Your task to perform on an android device: see tabs open on other devices in the chrome app Image 0: 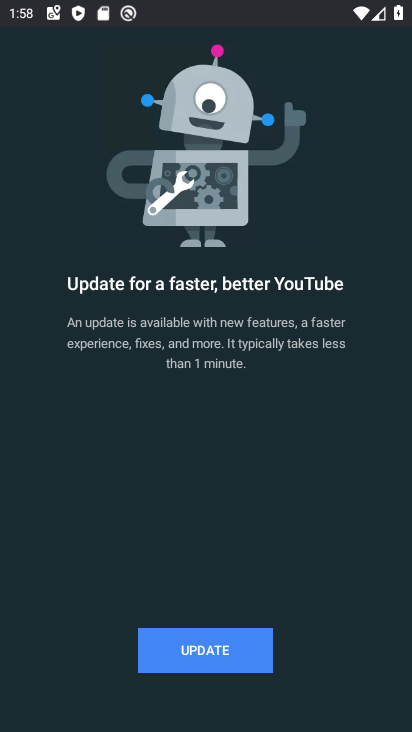
Step 0: press home button
Your task to perform on an android device: see tabs open on other devices in the chrome app Image 1: 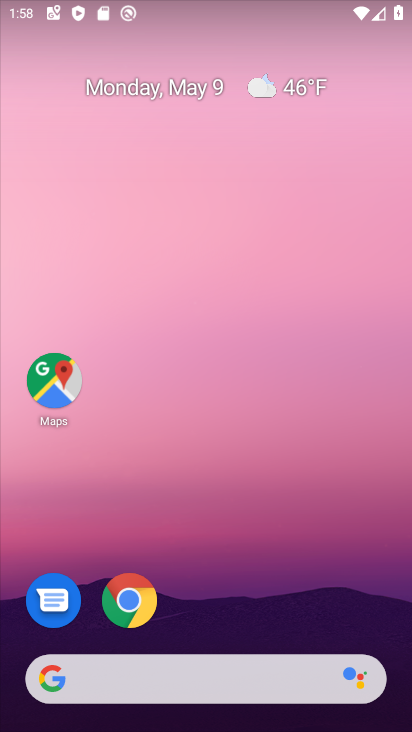
Step 1: click (143, 600)
Your task to perform on an android device: see tabs open on other devices in the chrome app Image 2: 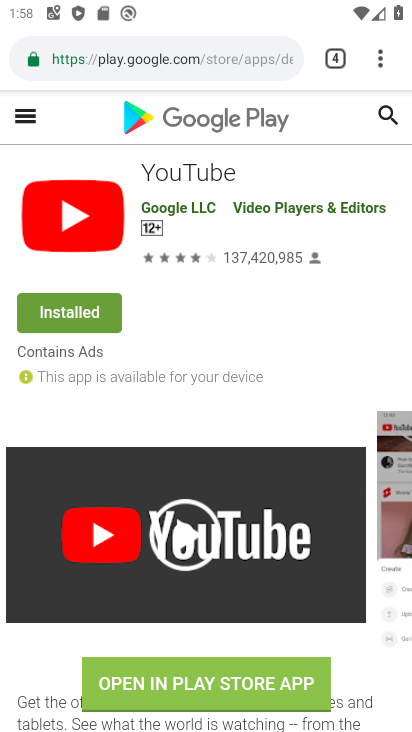
Step 2: click (370, 57)
Your task to perform on an android device: see tabs open on other devices in the chrome app Image 3: 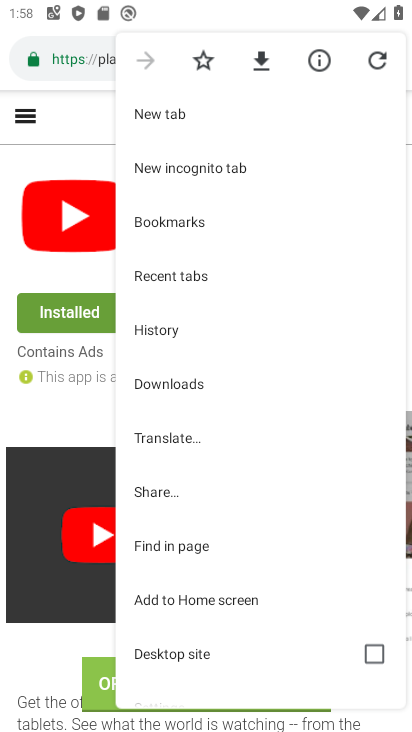
Step 3: click (193, 279)
Your task to perform on an android device: see tabs open on other devices in the chrome app Image 4: 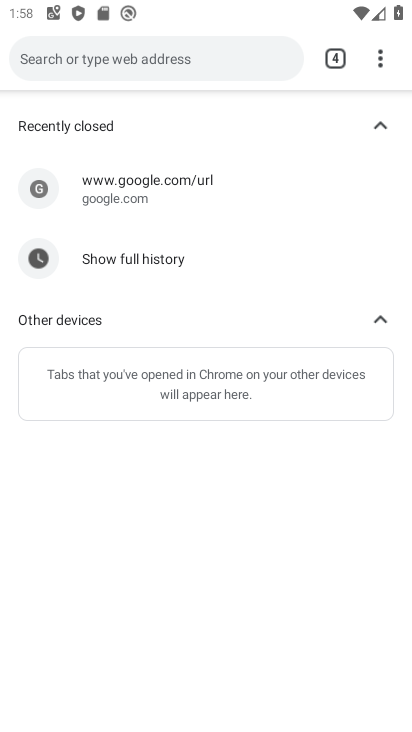
Step 4: click (127, 311)
Your task to perform on an android device: see tabs open on other devices in the chrome app Image 5: 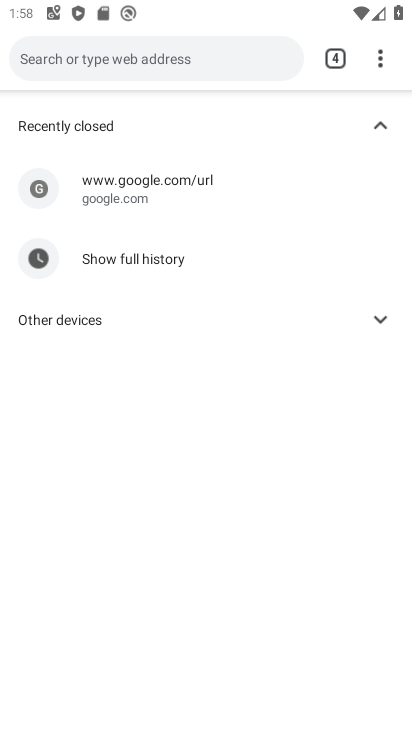
Step 5: task complete